Your task to perform on an android device: remove spam from my inbox in the gmail app Image 0: 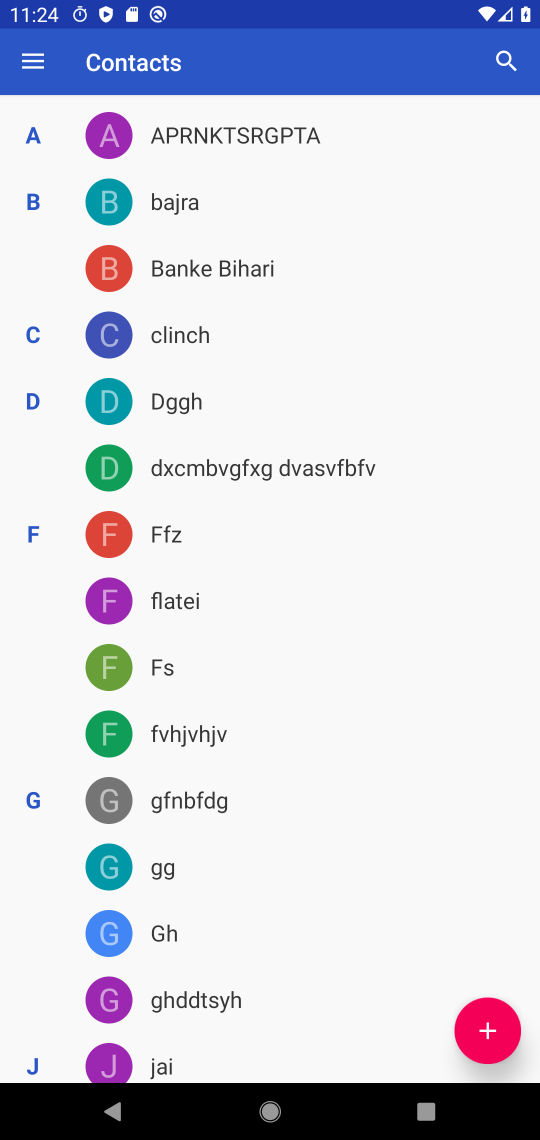
Step 0: press home button
Your task to perform on an android device: remove spam from my inbox in the gmail app Image 1: 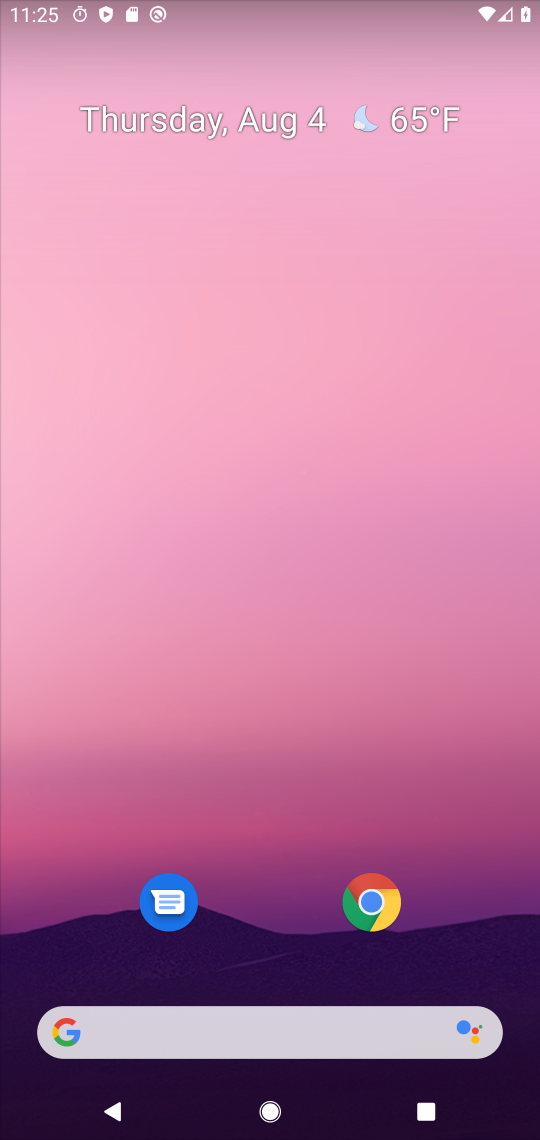
Step 1: drag from (336, 948) to (249, 433)
Your task to perform on an android device: remove spam from my inbox in the gmail app Image 2: 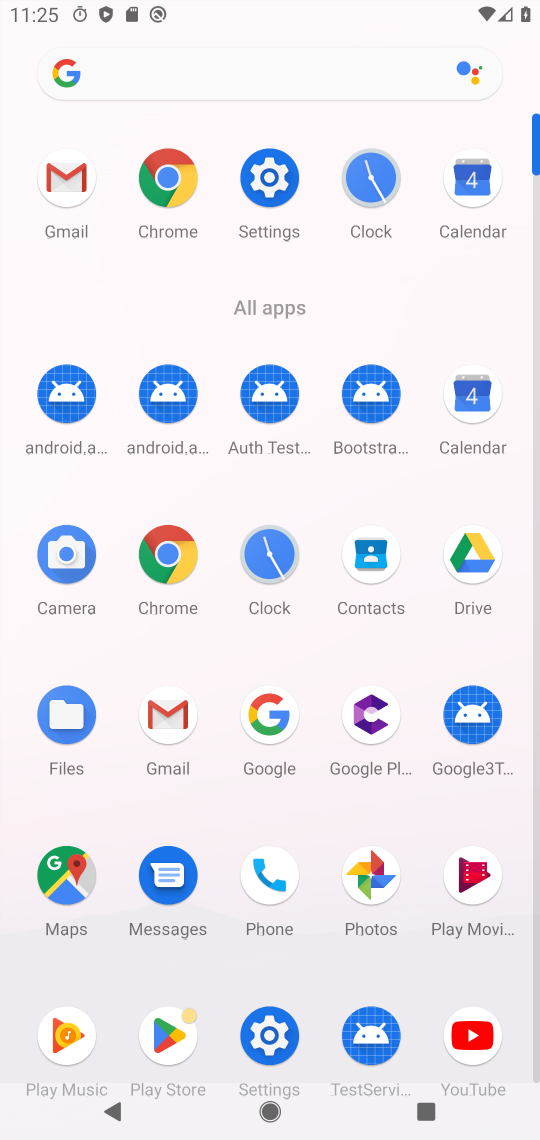
Step 2: click (196, 704)
Your task to perform on an android device: remove spam from my inbox in the gmail app Image 3: 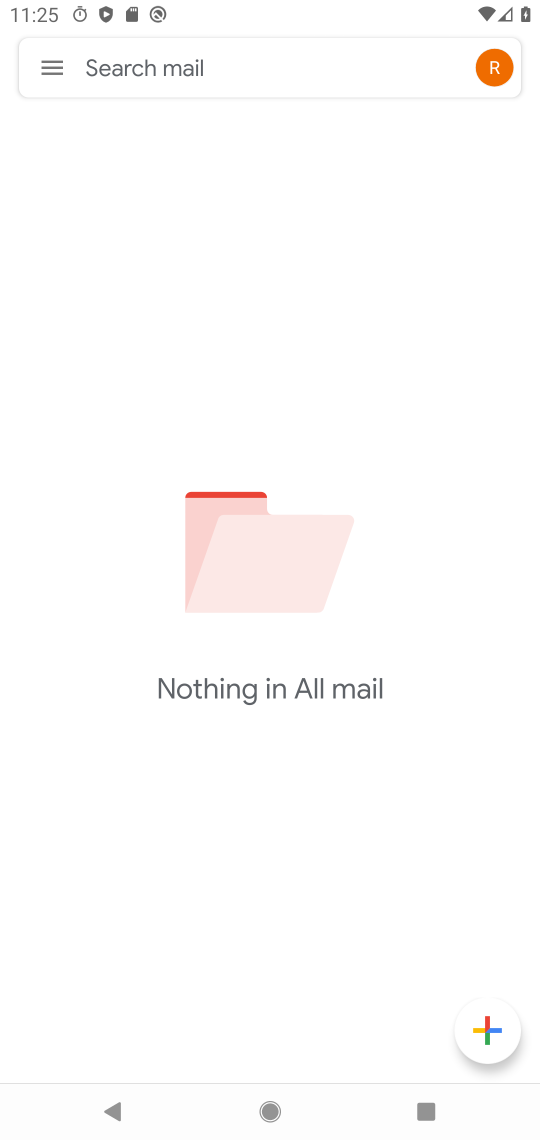
Step 3: click (57, 68)
Your task to perform on an android device: remove spam from my inbox in the gmail app Image 4: 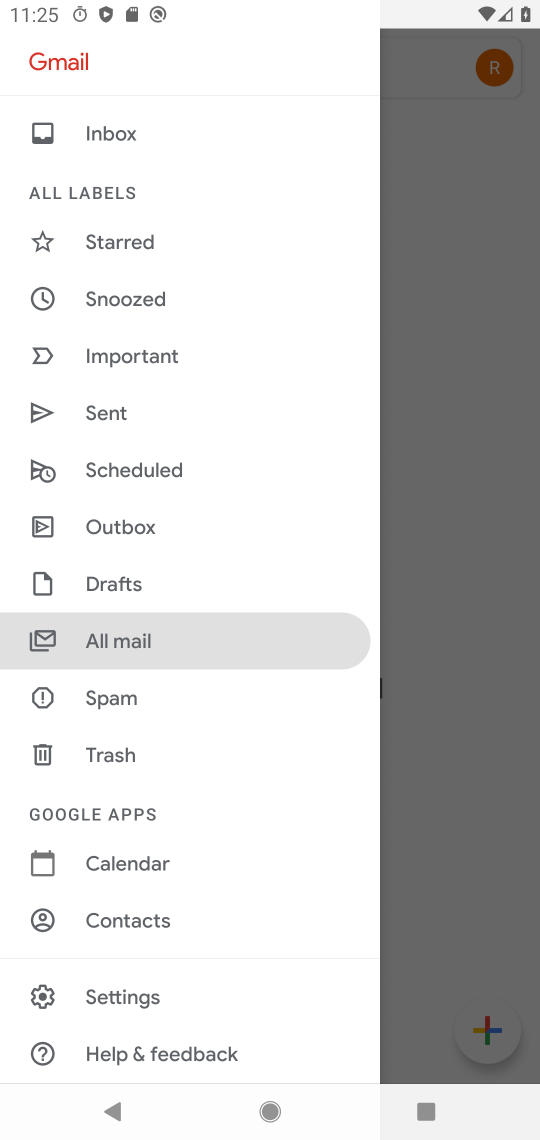
Step 4: click (120, 710)
Your task to perform on an android device: remove spam from my inbox in the gmail app Image 5: 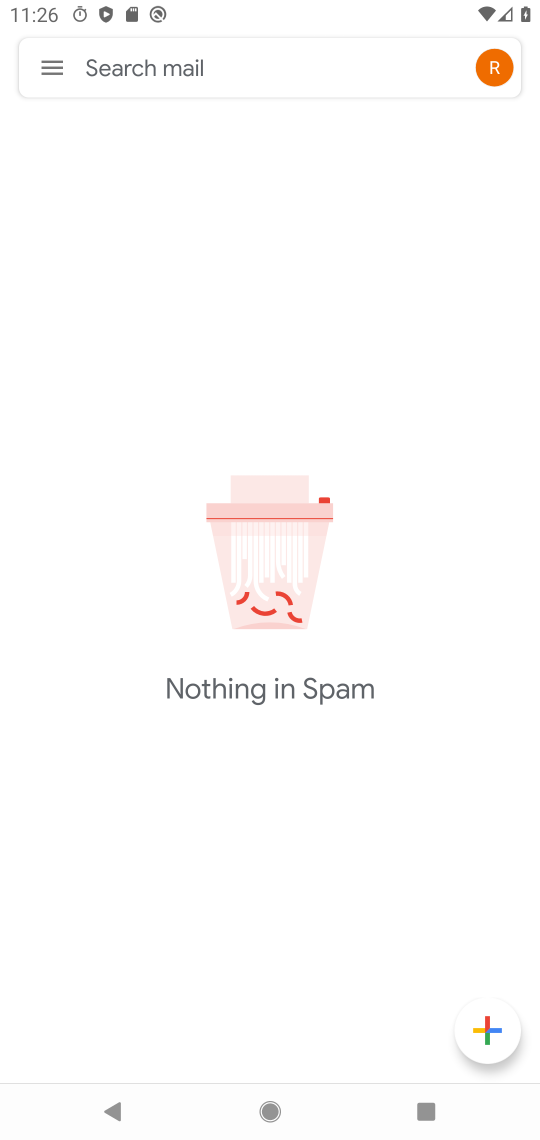
Step 5: task complete